Your task to perform on an android device: Show me productivity apps on the Play Store Image 0: 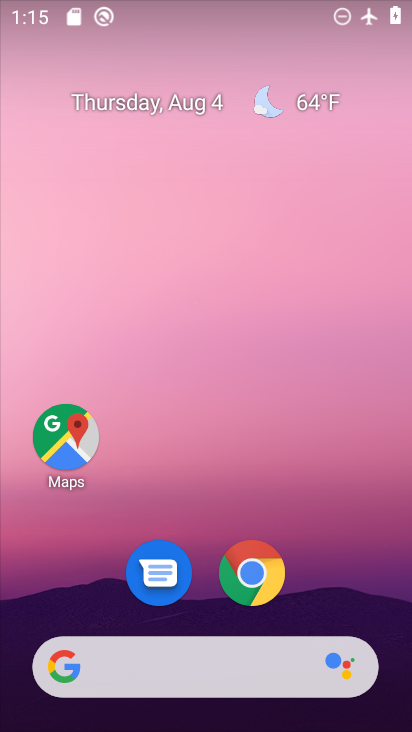
Step 0: drag from (329, 543) to (260, 18)
Your task to perform on an android device: Show me productivity apps on the Play Store Image 1: 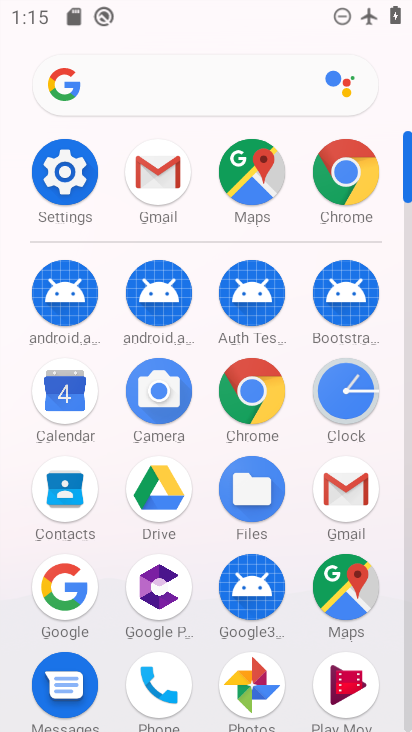
Step 1: drag from (198, 631) to (203, 261)
Your task to perform on an android device: Show me productivity apps on the Play Store Image 2: 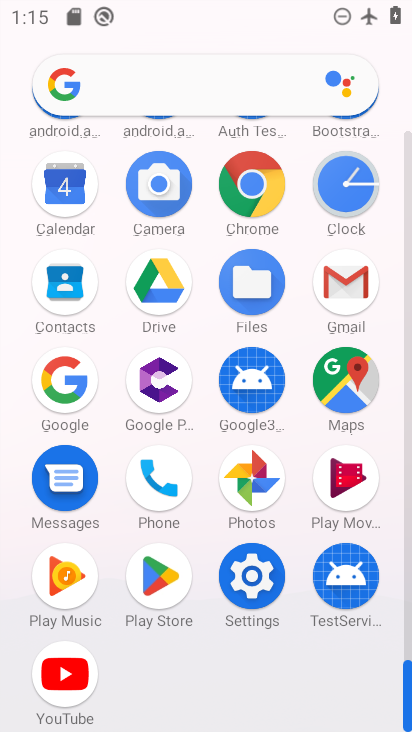
Step 2: click (149, 586)
Your task to perform on an android device: Show me productivity apps on the Play Store Image 3: 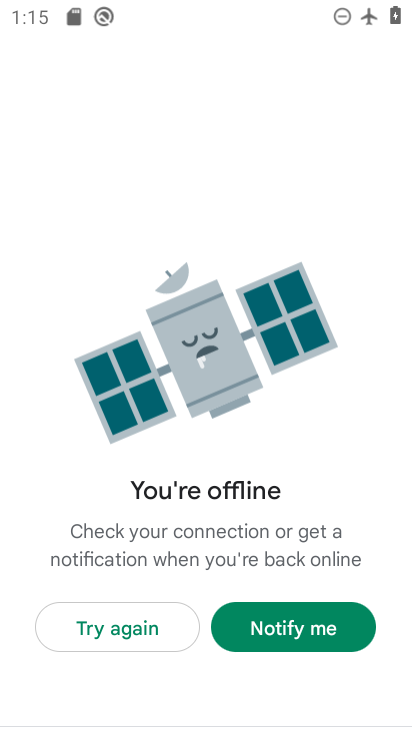
Step 3: task complete